Your task to perform on an android device: find photos in the google photos app Image 0: 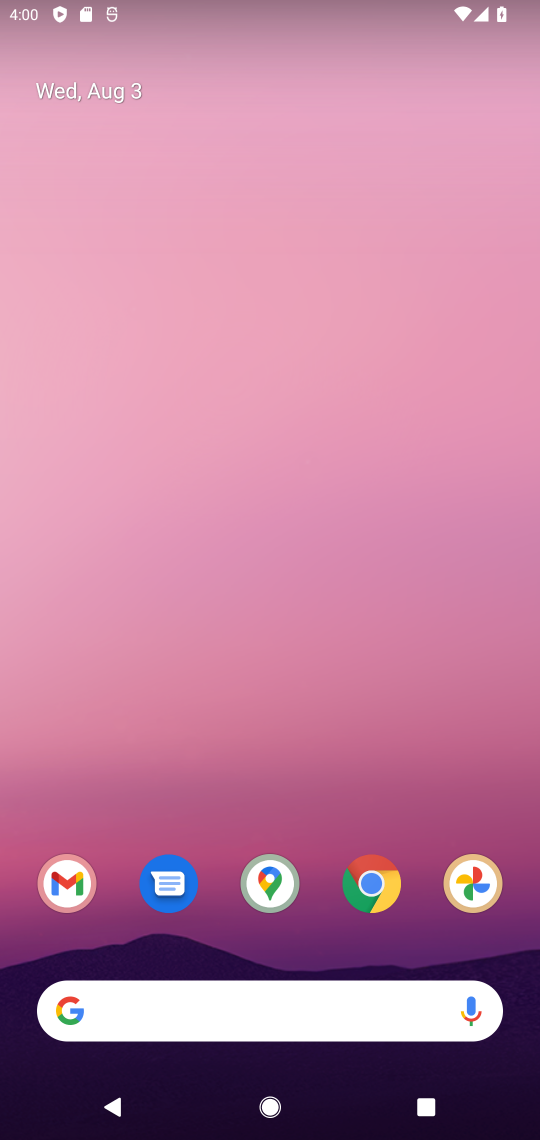
Step 0: drag from (224, 242) to (251, 0)
Your task to perform on an android device: find photos in the google photos app Image 1: 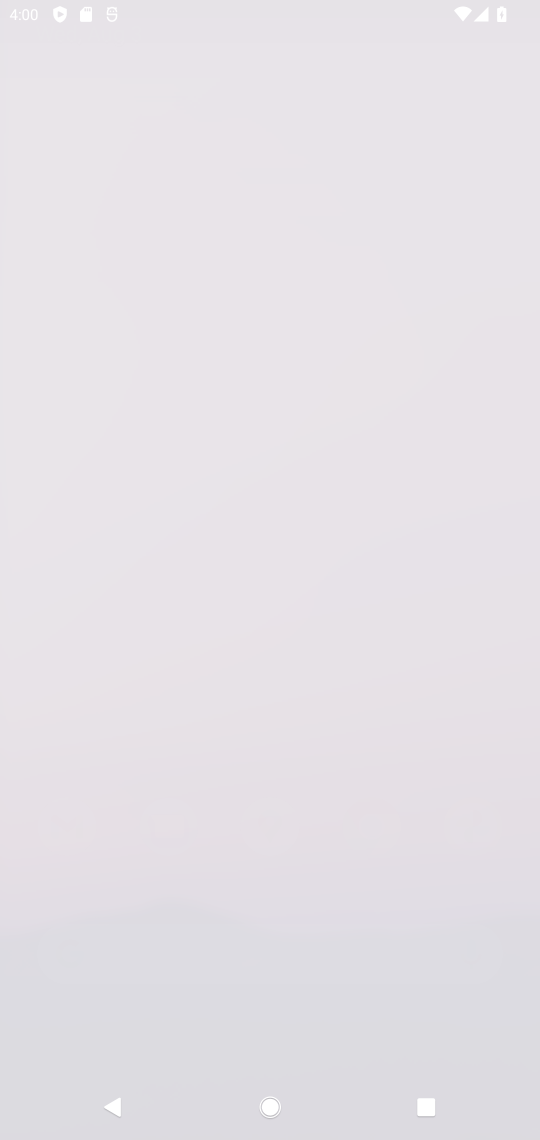
Step 1: drag from (302, 950) to (307, 40)
Your task to perform on an android device: find photos in the google photos app Image 2: 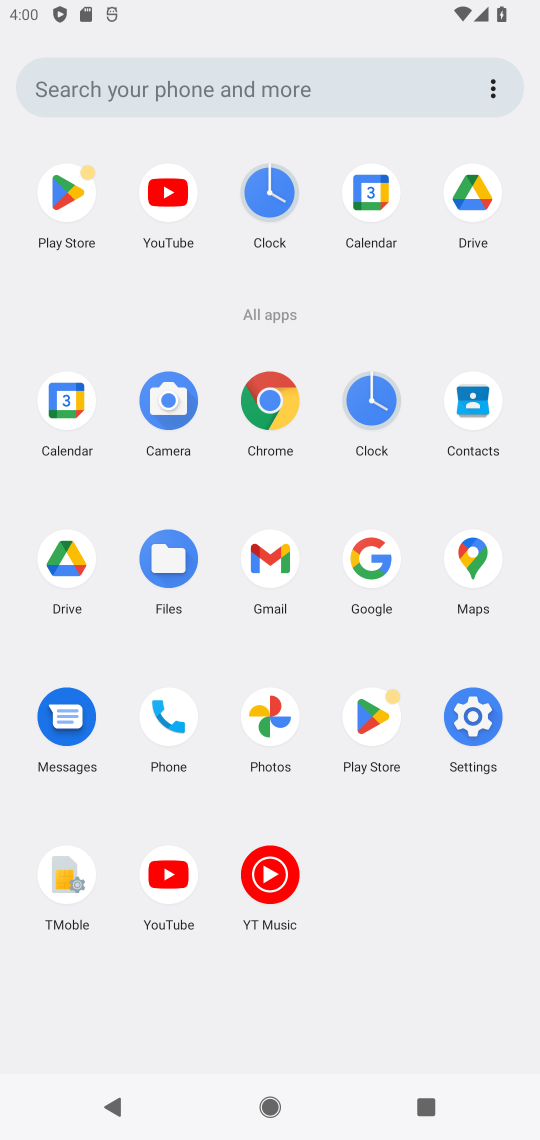
Step 2: press home button
Your task to perform on an android device: find photos in the google photos app Image 3: 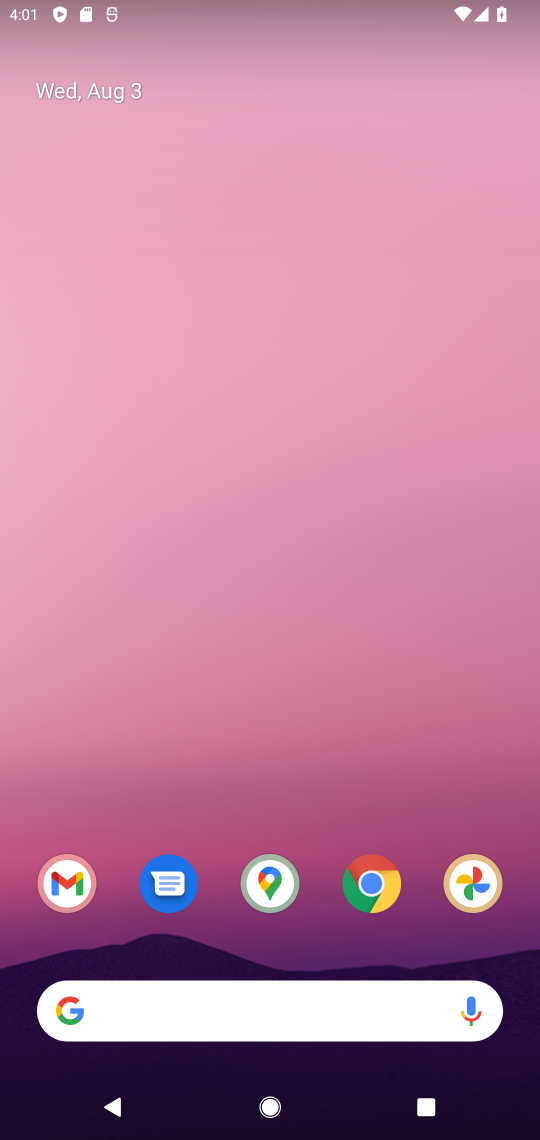
Step 3: drag from (245, 768) to (225, 43)
Your task to perform on an android device: find photos in the google photos app Image 4: 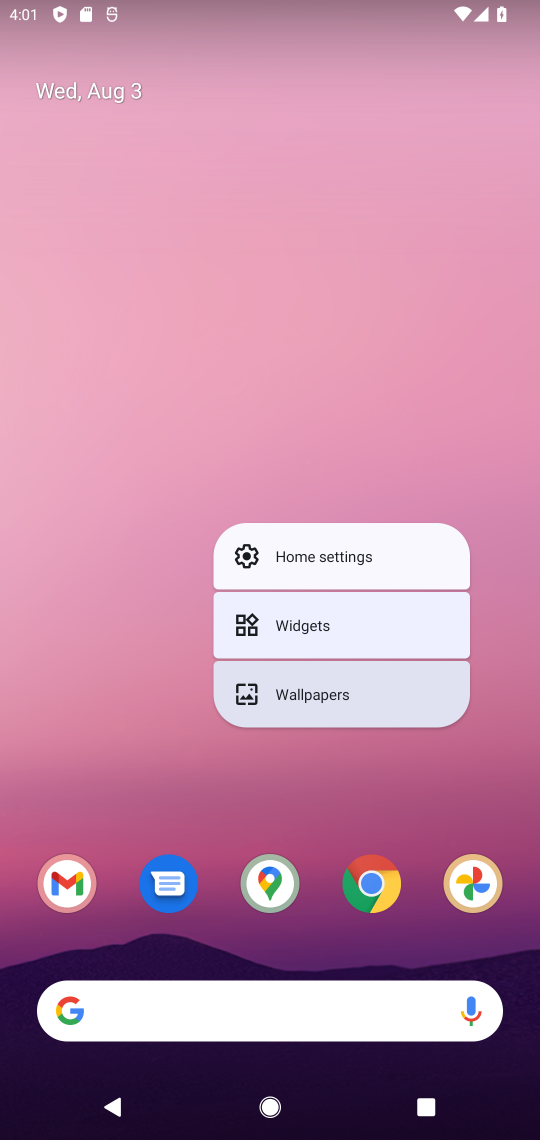
Step 4: click (464, 886)
Your task to perform on an android device: find photos in the google photos app Image 5: 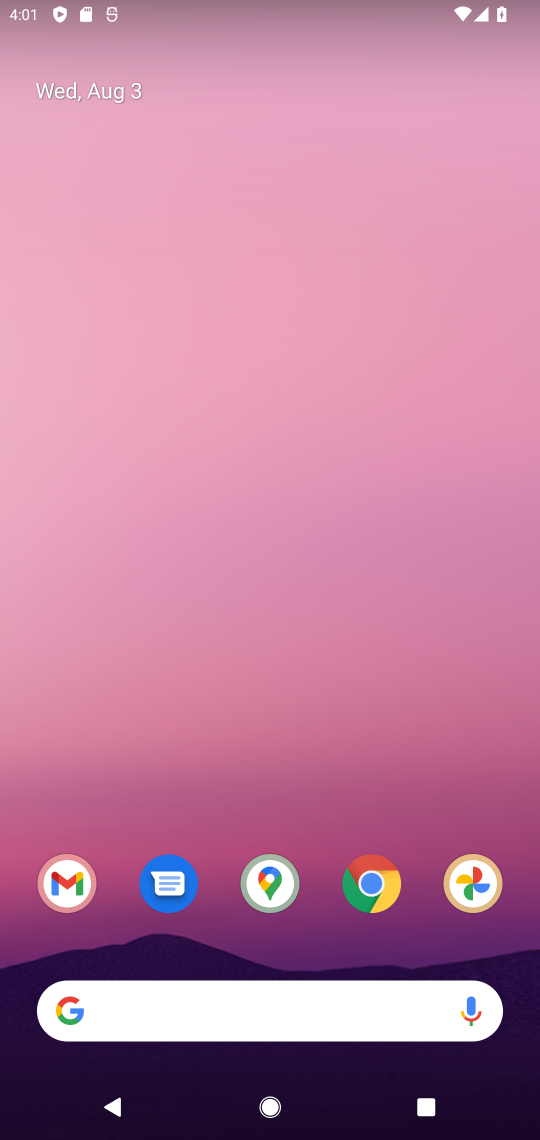
Step 5: click (464, 886)
Your task to perform on an android device: find photos in the google photos app Image 6: 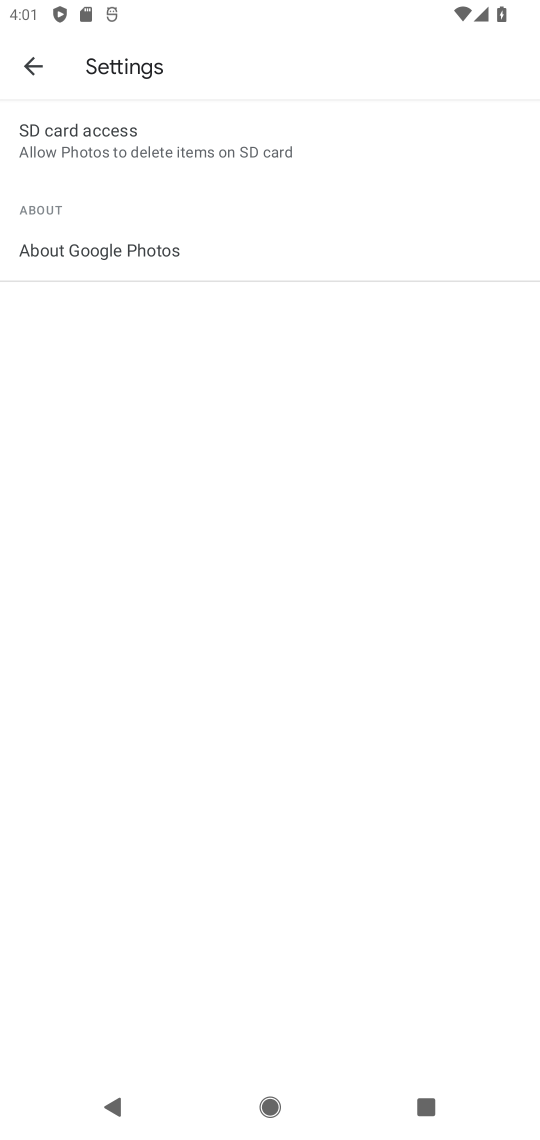
Step 6: click (25, 49)
Your task to perform on an android device: find photos in the google photos app Image 7: 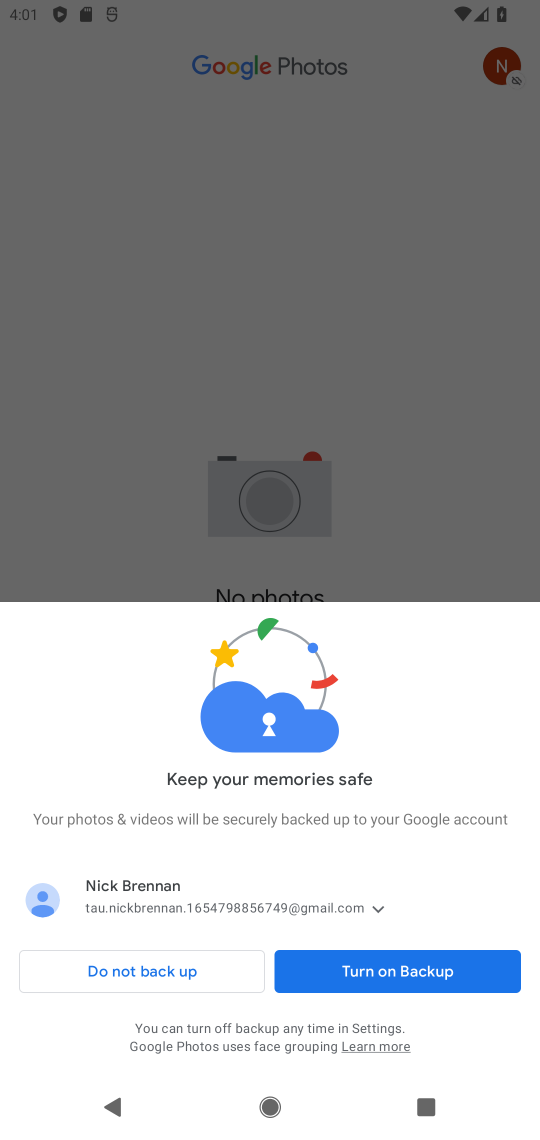
Step 7: click (191, 983)
Your task to perform on an android device: find photos in the google photos app Image 8: 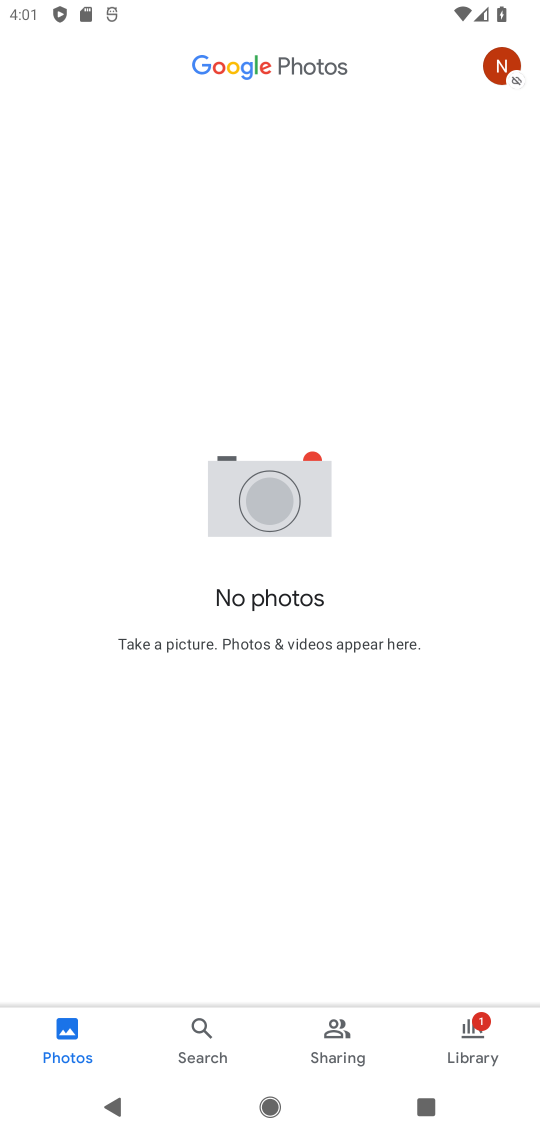
Step 8: task complete